Your task to perform on an android device: install app "NewsBreak: Local News & Alerts" Image 0: 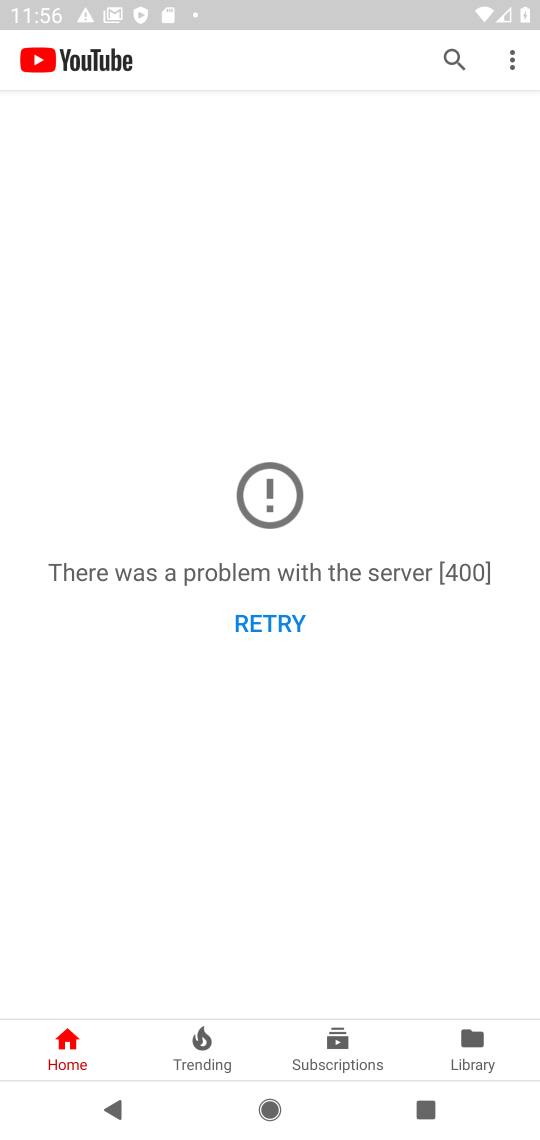
Step 0: press home button
Your task to perform on an android device: install app "NewsBreak: Local News & Alerts" Image 1: 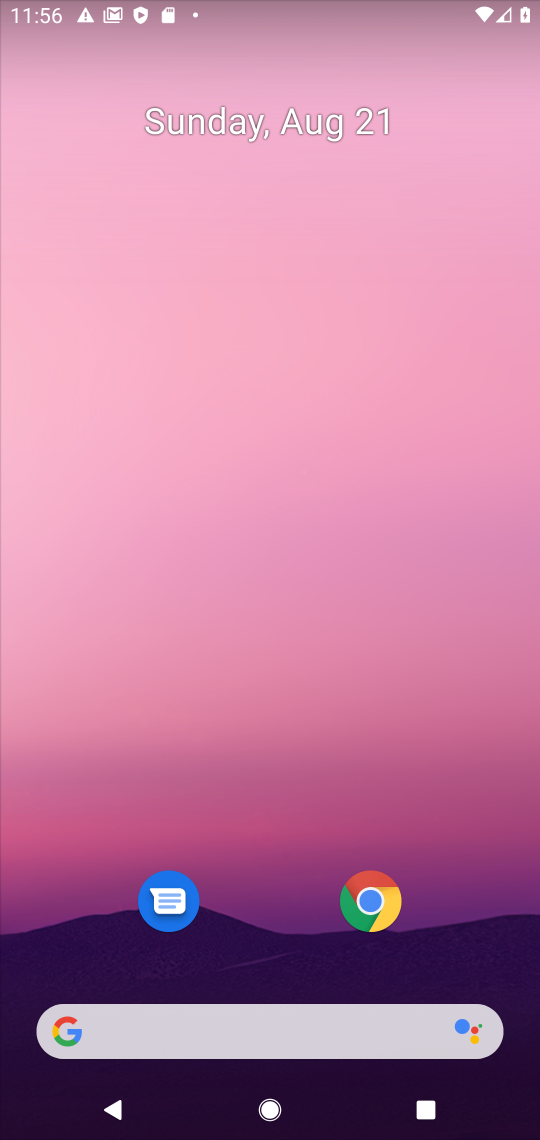
Step 1: drag from (261, 847) to (220, 200)
Your task to perform on an android device: install app "NewsBreak: Local News & Alerts" Image 2: 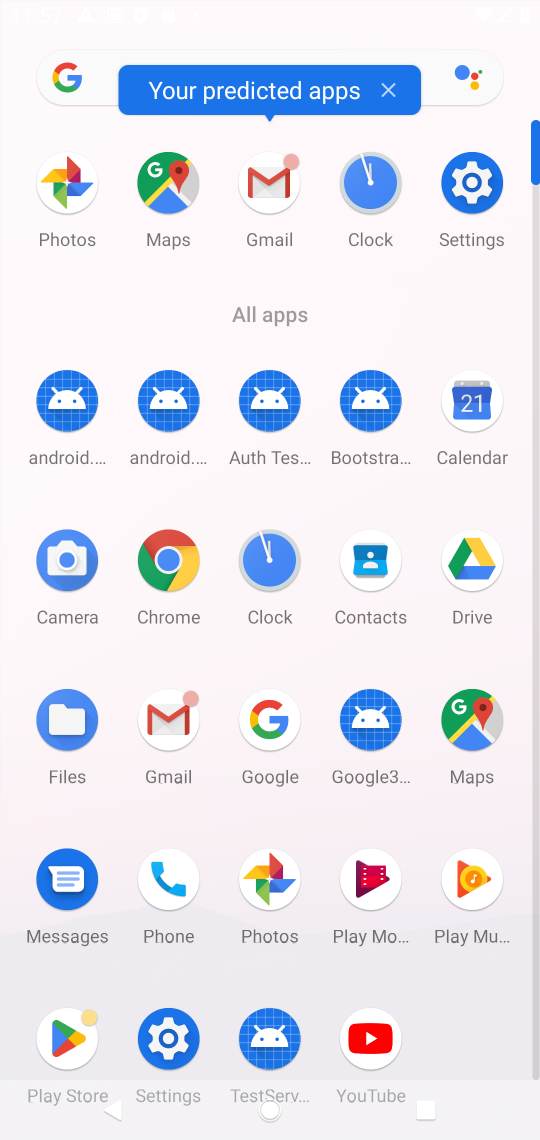
Step 2: click (74, 1026)
Your task to perform on an android device: install app "NewsBreak: Local News & Alerts" Image 3: 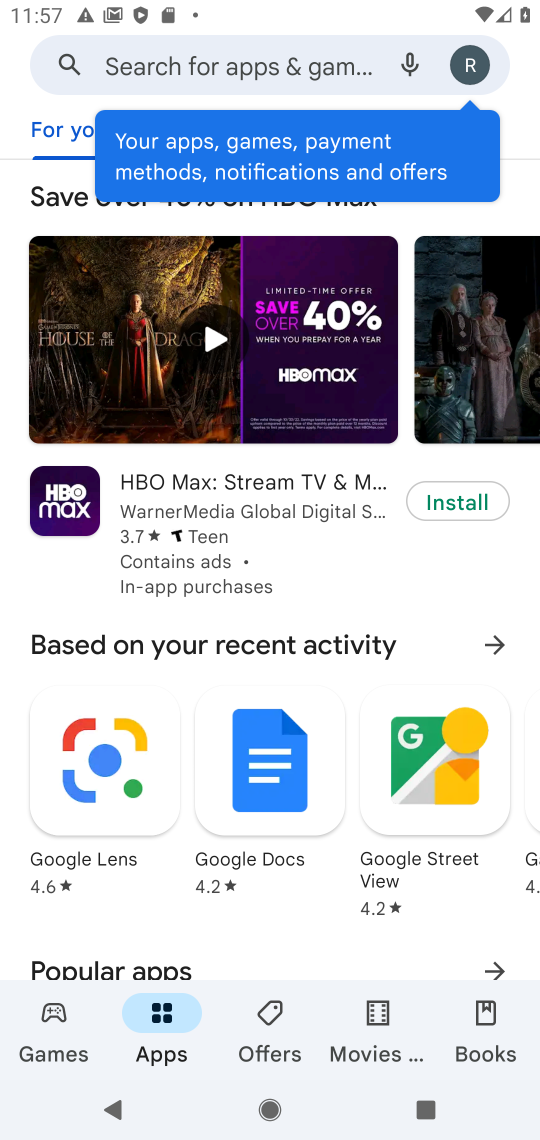
Step 3: click (316, 59)
Your task to perform on an android device: install app "NewsBreak: Local News & Alerts" Image 4: 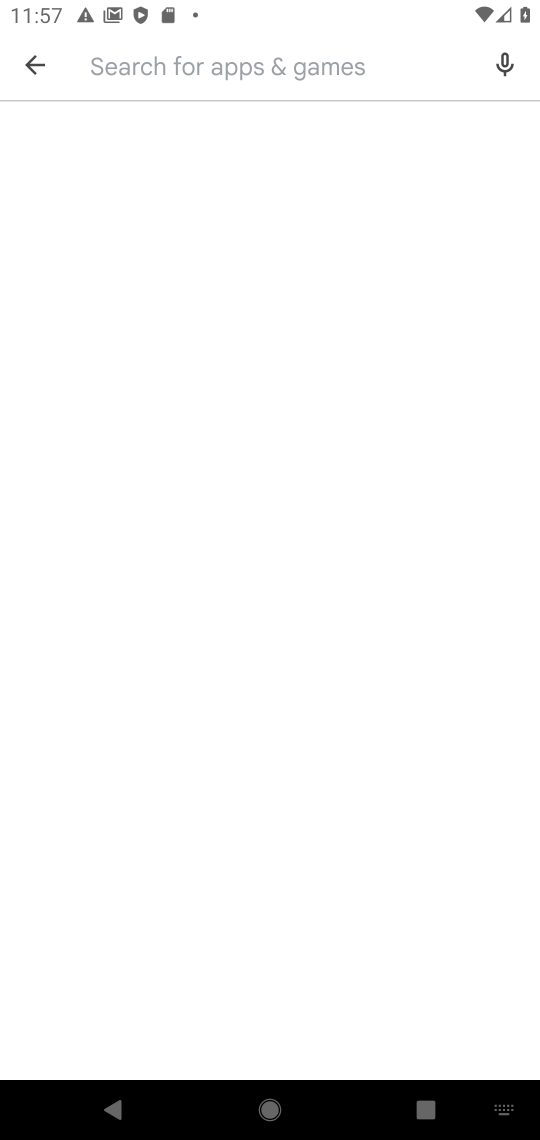
Step 4: type "newsbreak"
Your task to perform on an android device: install app "NewsBreak: Local News & Alerts" Image 5: 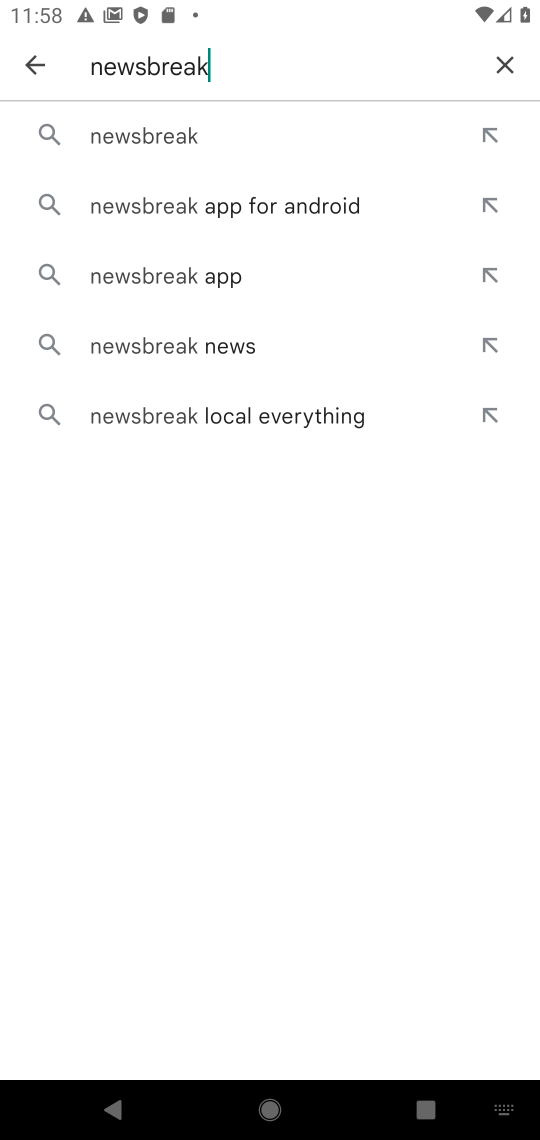
Step 5: click (188, 155)
Your task to perform on an android device: install app "NewsBreak: Local News & Alerts" Image 6: 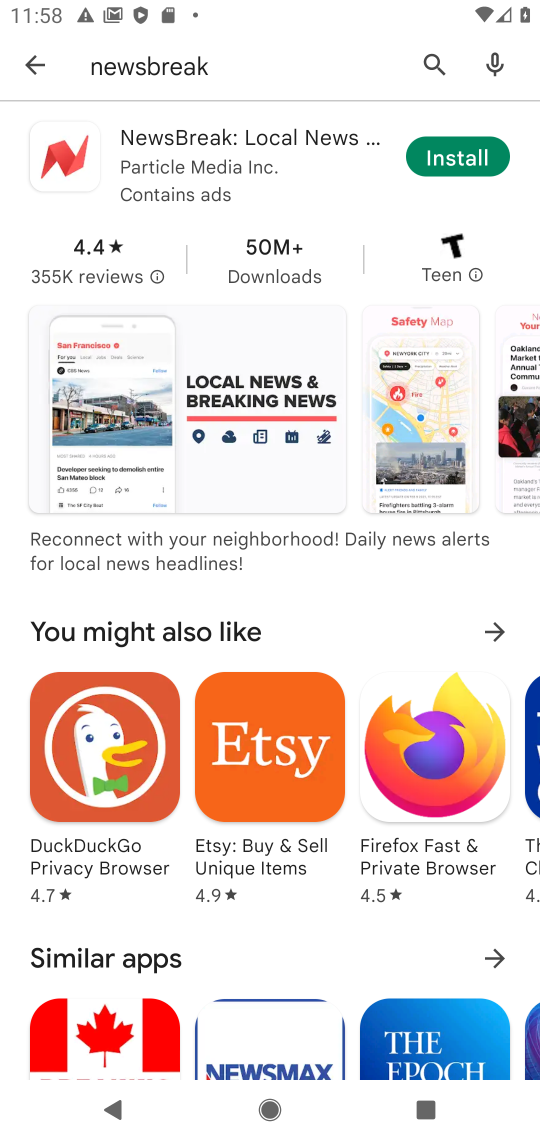
Step 6: click (442, 163)
Your task to perform on an android device: install app "NewsBreak: Local News & Alerts" Image 7: 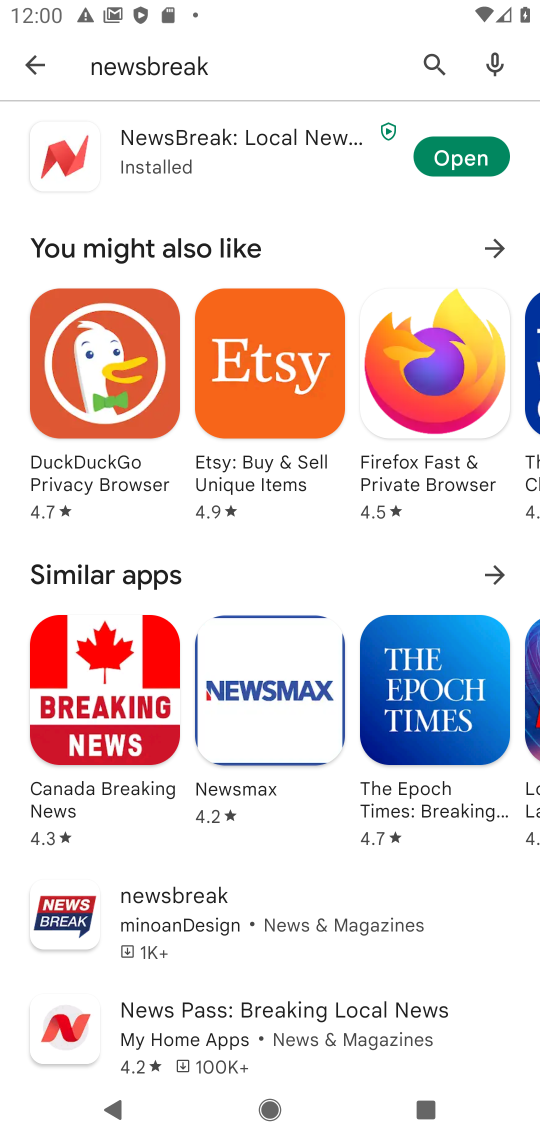
Step 7: task complete